Your task to perform on an android device: Go to Yahoo.com Image 0: 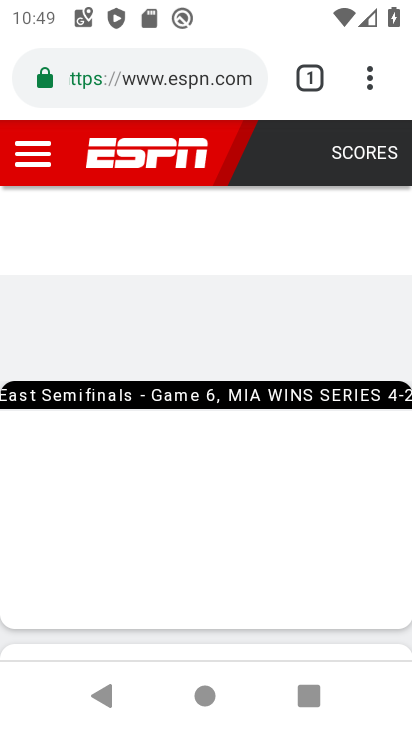
Step 0: press home button
Your task to perform on an android device: Go to Yahoo.com Image 1: 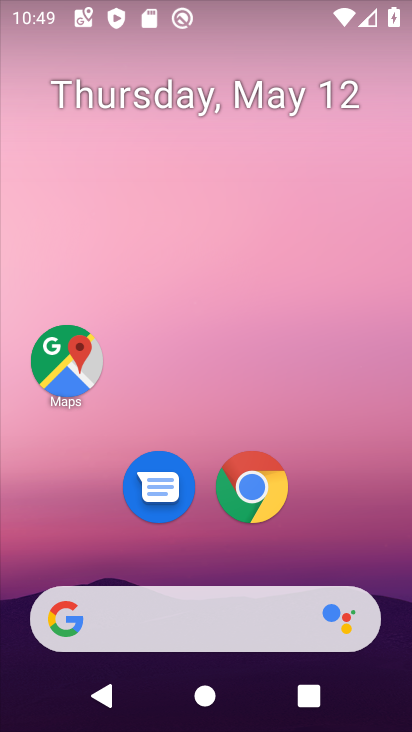
Step 1: drag from (111, 452) to (221, 222)
Your task to perform on an android device: Go to Yahoo.com Image 2: 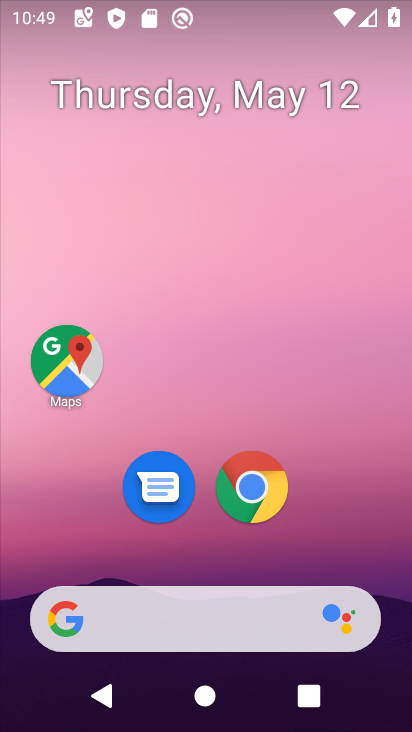
Step 2: click (245, 482)
Your task to perform on an android device: Go to Yahoo.com Image 3: 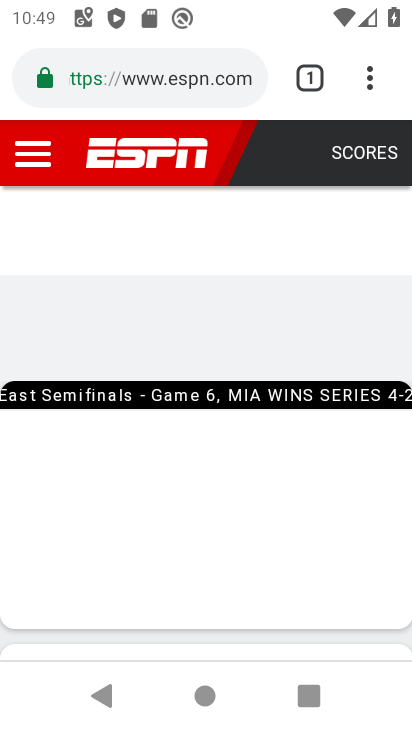
Step 3: click (306, 68)
Your task to perform on an android device: Go to Yahoo.com Image 4: 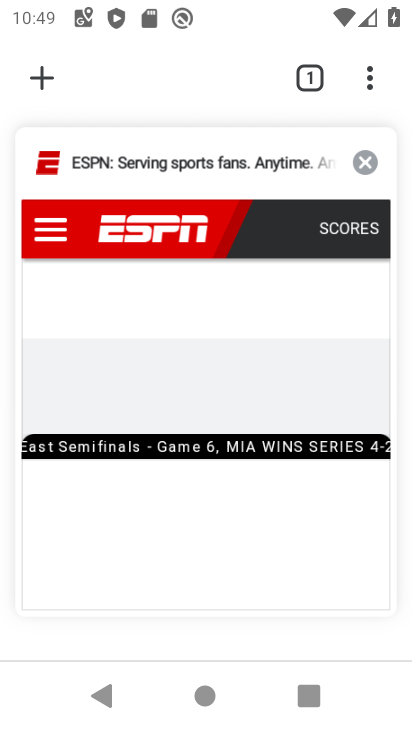
Step 4: click (368, 165)
Your task to perform on an android device: Go to Yahoo.com Image 5: 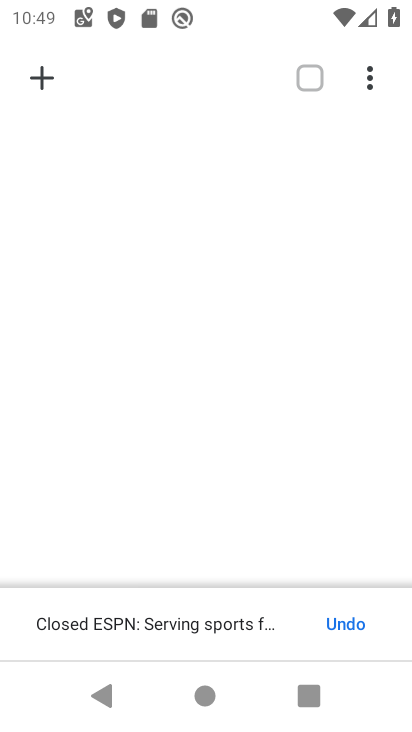
Step 5: click (36, 68)
Your task to perform on an android device: Go to Yahoo.com Image 6: 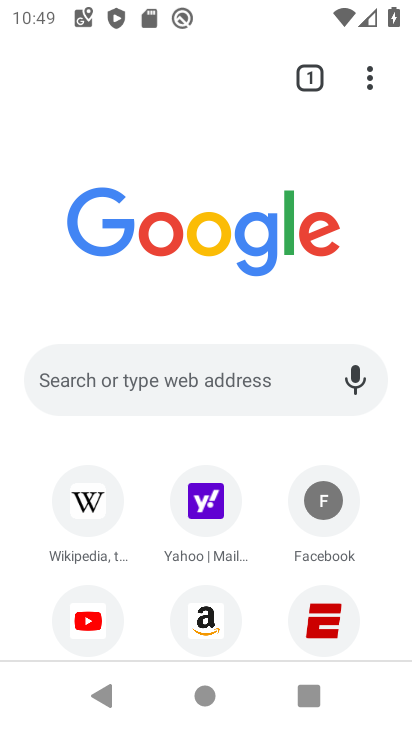
Step 6: click (217, 501)
Your task to perform on an android device: Go to Yahoo.com Image 7: 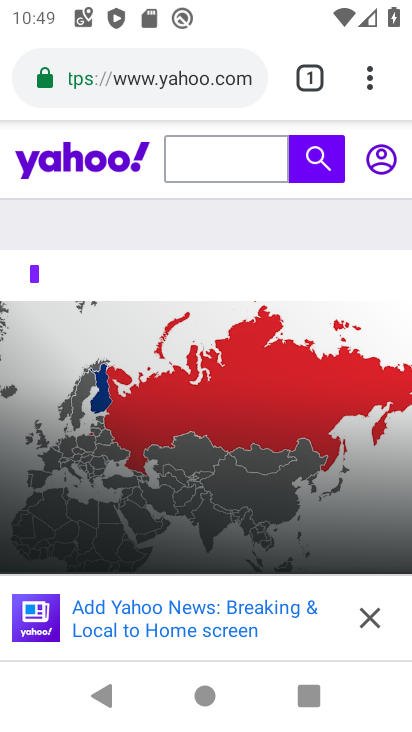
Step 7: click (371, 613)
Your task to perform on an android device: Go to Yahoo.com Image 8: 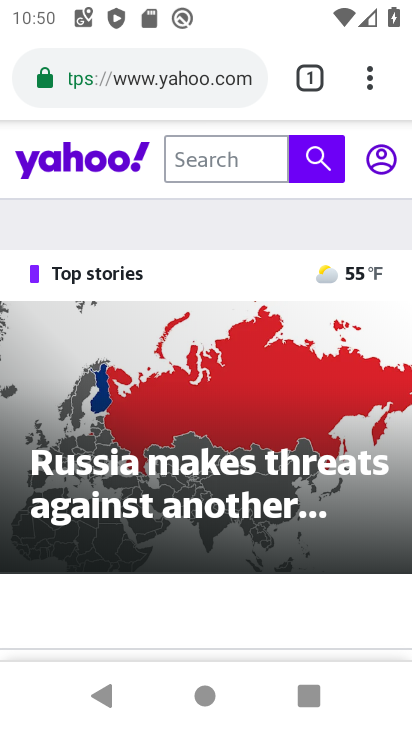
Step 8: task complete